Your task to perform on an android device: delete browsing data in the chrome app Image 0: 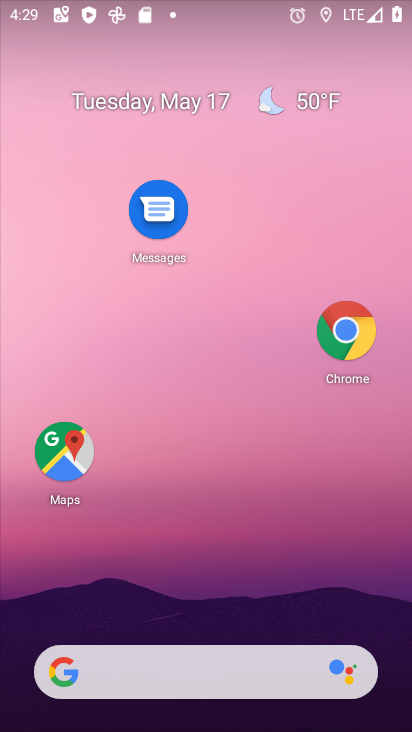
Step 0: drag from (311, 562) to (133, 9)
Your task to perform on an android device: delete browsing data in the chrome app Image 1: 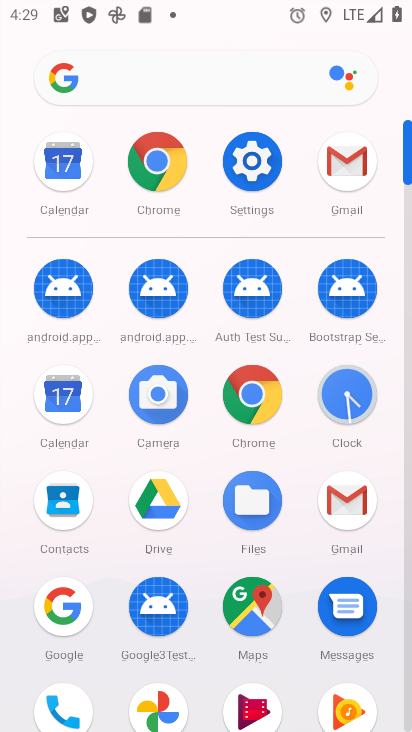
Step 1: click (164, 211)
Your task to perform on an android device: delete browsing data in the chrome app Image 2: 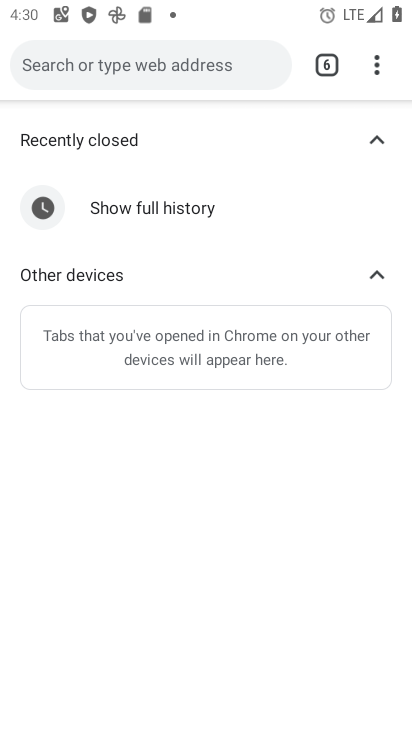
Step 2: click (293, 203)
Your task to perform on an android device: delete browsing data in the chrome app Image 3: 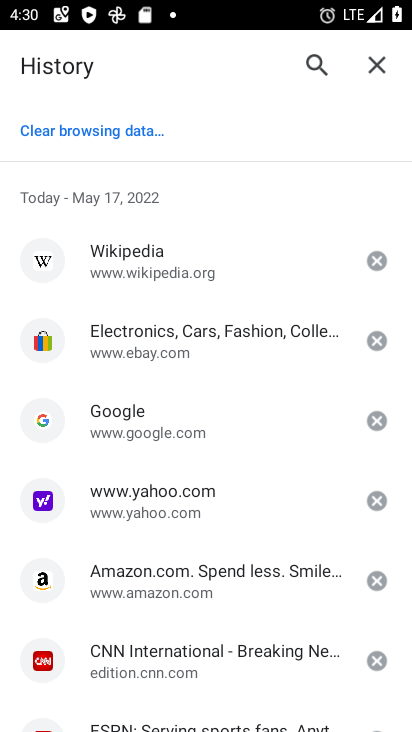
Step 3: click (148, 143)
Your task to perform on an android device: delete browsing data in the chrome app Image 4: 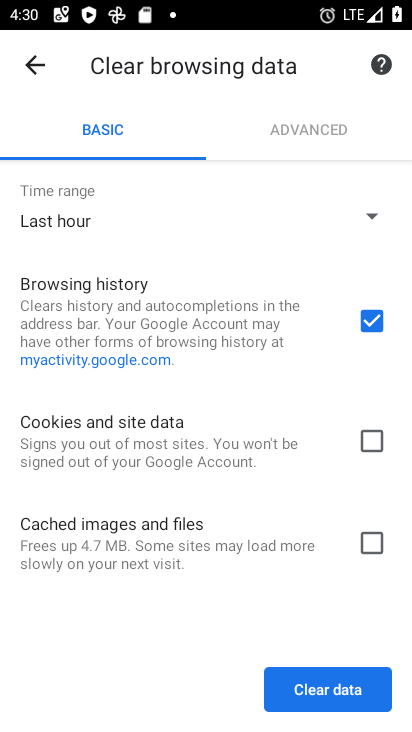
Step 4: click (340, 675)
Your task to perform on an android device: delete browsing data in the chrome app Image 5: 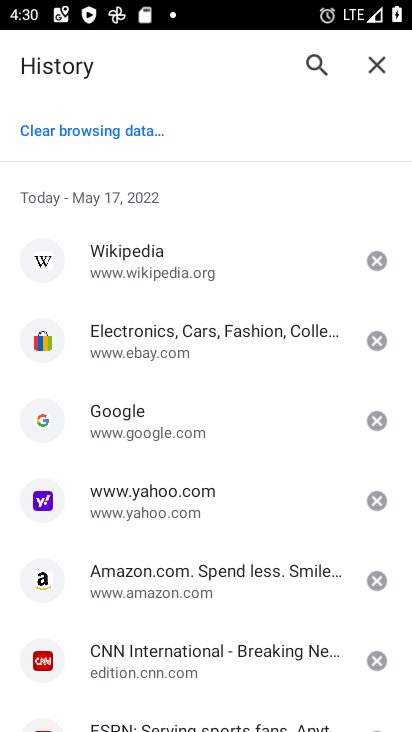
Step 5: click (130, 102)
Your task to perform on an android device: delete browsing data in the chrome app Image 6: 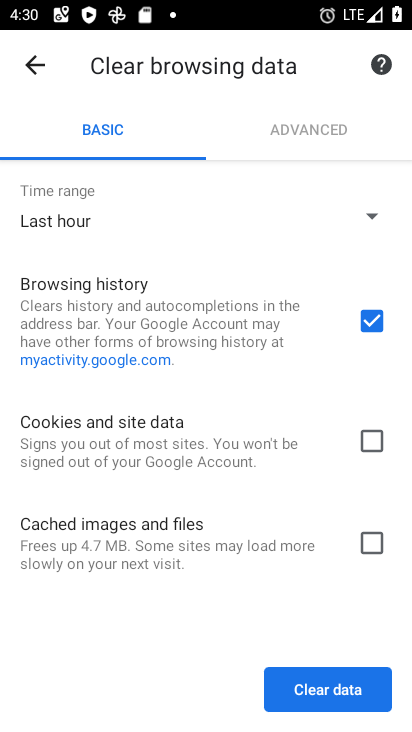
Step 6: click (329, 452)
Your task to perform on an android device: delete browsing data in the chrome app Image 7: 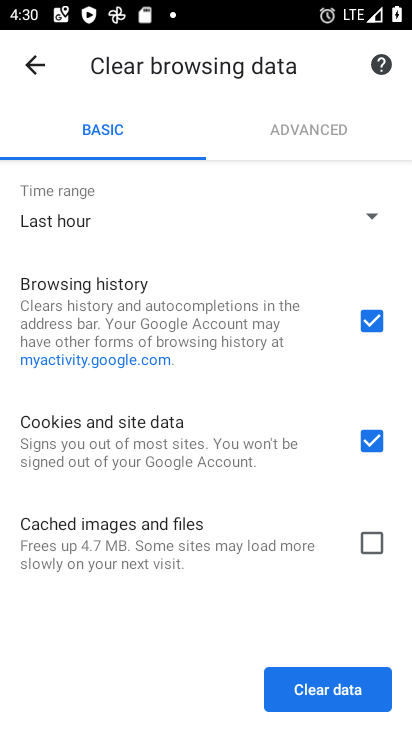
Step 7: click (334, 525)
Your task to perform on an android device: delete browsing data in the chrome app Image 8: 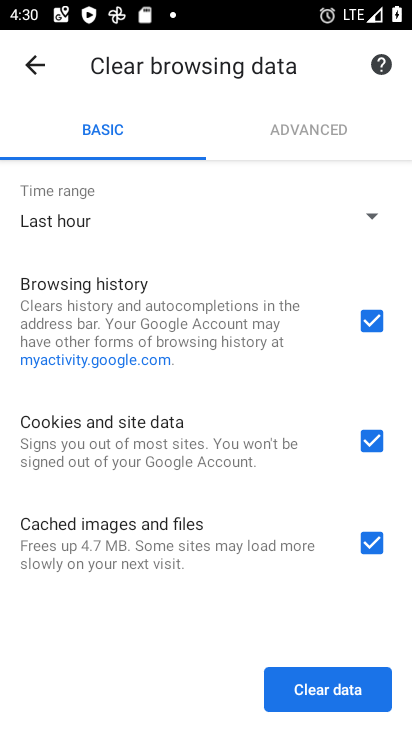
Step 8: click (368, 692)
Your task to perform on an android device: delete browsing data in the chrome app Image 9: 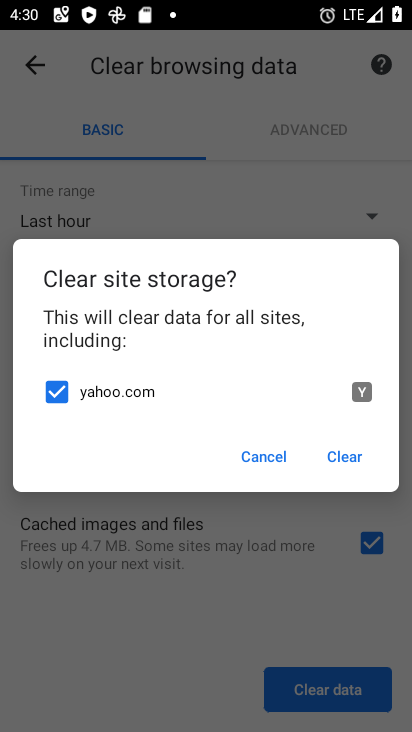
Step 9: click (349, 459)
Your task to perform on an android device: delete browsing data in the chrome app Image 10: 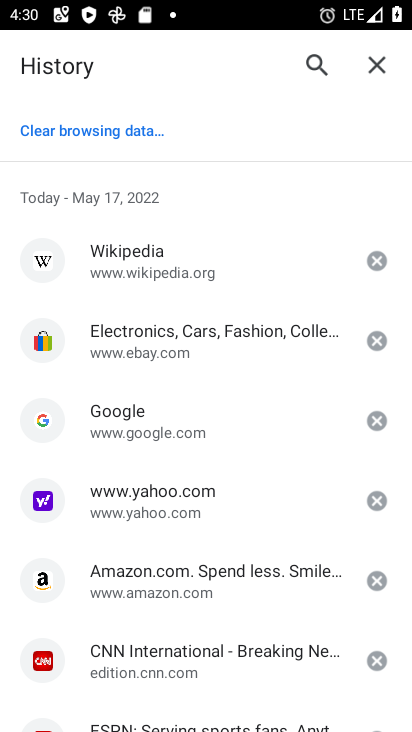
Step 10: task complete